Your task to perform on an android device: turn on notifications settings in the gmail app Image 0: 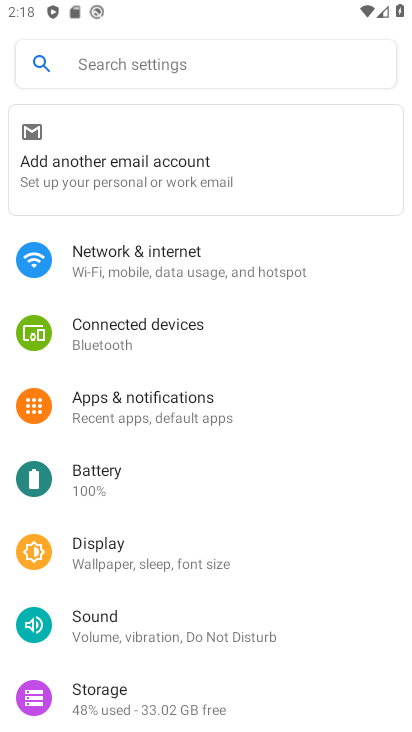
Step 0: press home button
Your task to perform on an android device: turn on notifications settings in the gmail app Image 1: 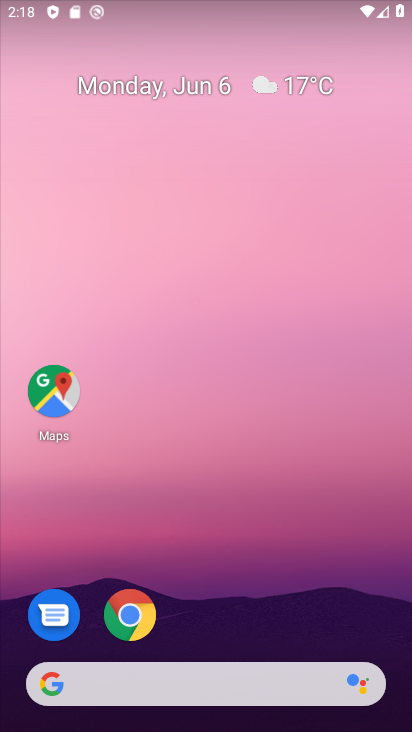
Step 1: drag from (239, 552) to (253, 2)
Your task to perform on an android device: turn on notifications settings in the gmail app Image 2: 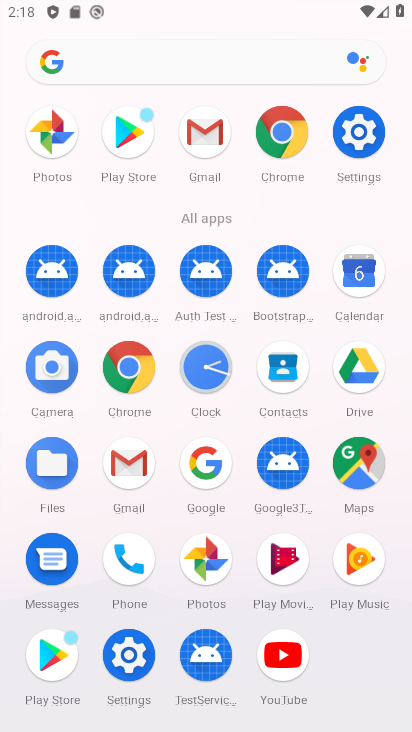
Step 2: click (121, 496)
Your task to perform on an android device: turn on notifications settings in the gmail app Image 3: 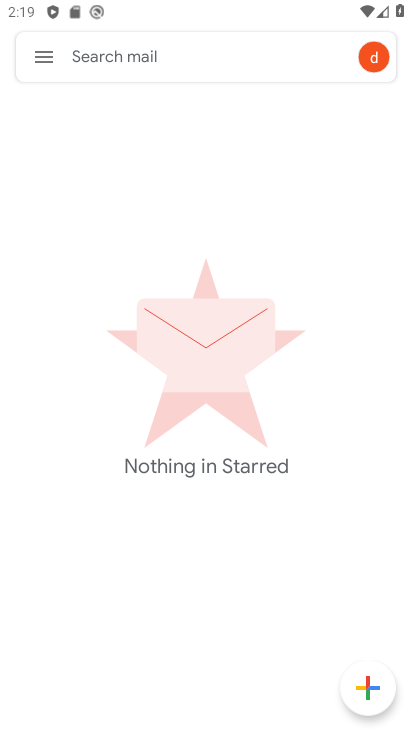
Step 3: click (50, 55)
Your task to perform on an android device: turn on notifications settings in the gmail app Image 4: 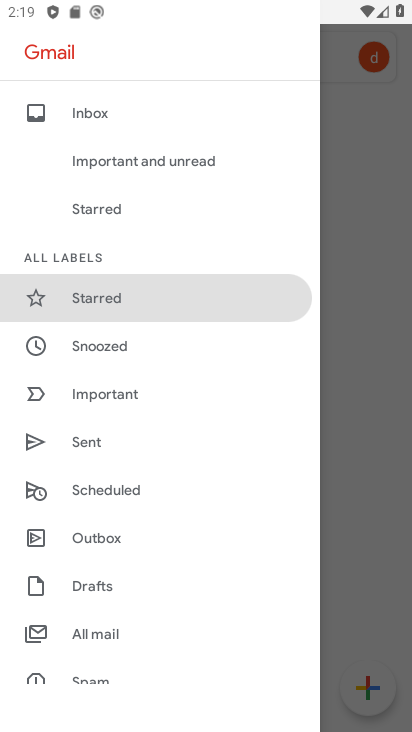
Step 4: drag from (104, 523) to (167, 212)
Your task to perform on an android device: turn on notifications settings in the gmail app Image 5: 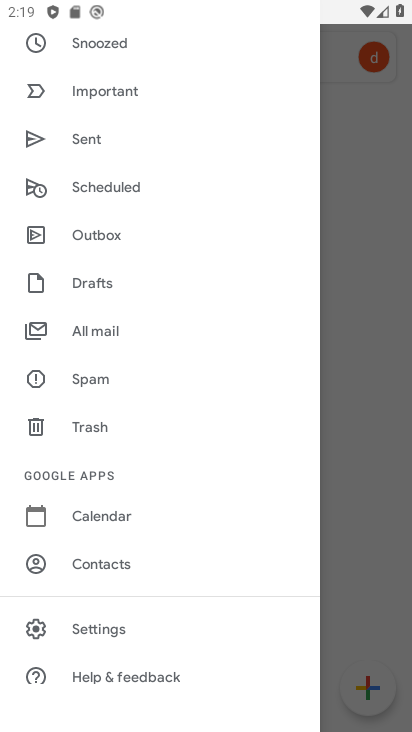
Step 5: click (118, 633)
Your task to perform on an android device: turn on notifications settings in the gmail app Image 6: 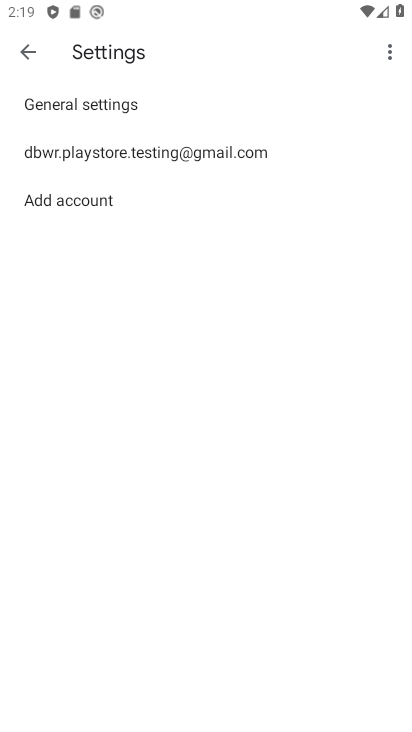
Step 6: click (120, 99)
Your task to perform on an android device: turn on notifications settings in the gmail app Image 7: 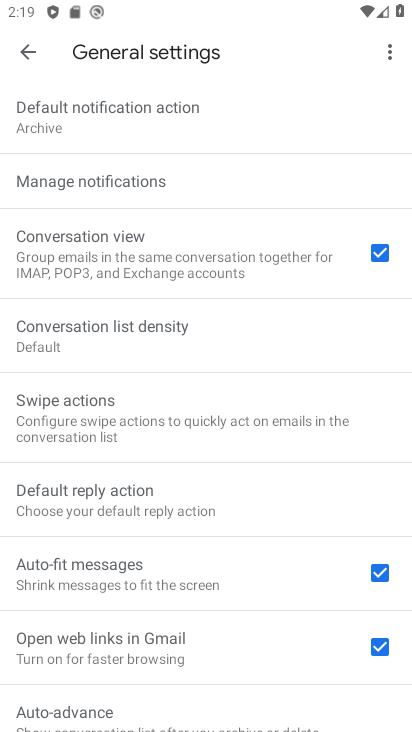
Step 7: click (144, 175)
Your task to perform on an android device: turn on notifications settings in the gmail app Image 8: 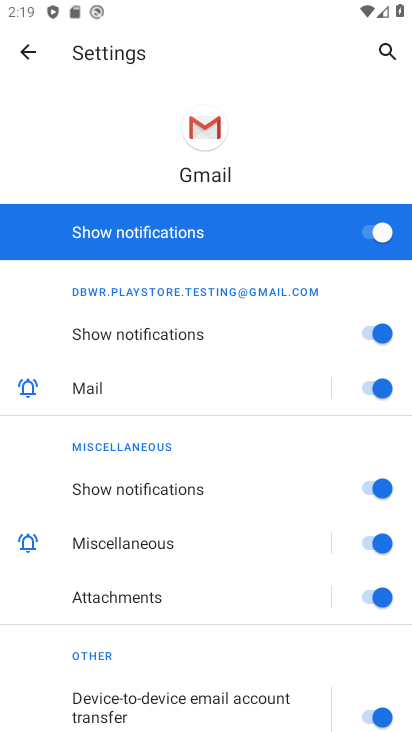
Step 8: task complete